Your task to perform on an android device: turn on notifications settings in the gmail app Image 0: 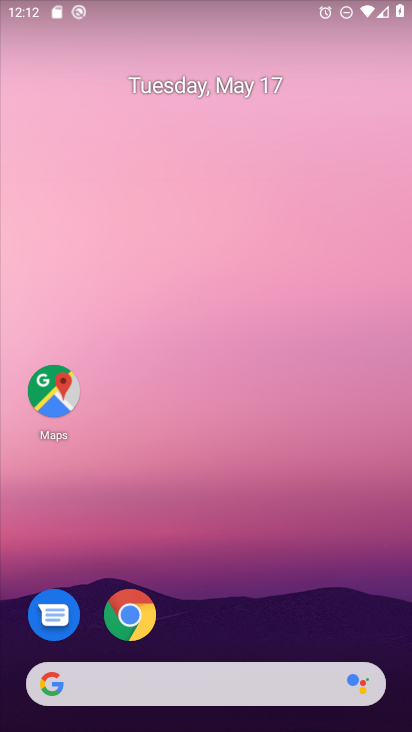
Step 0: drag from (241, 637) to (279, 332)
Your task to perform on an android device: turn on notifications settings in the gmail app Image 1: 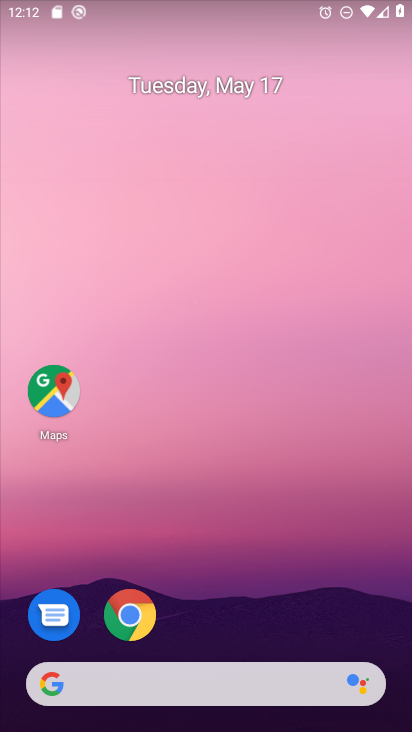
Step 1: drag from (239, 587) to (260, 377)
Your task to perform on an android device: turn on notifications settings in the gmail app Image 2: 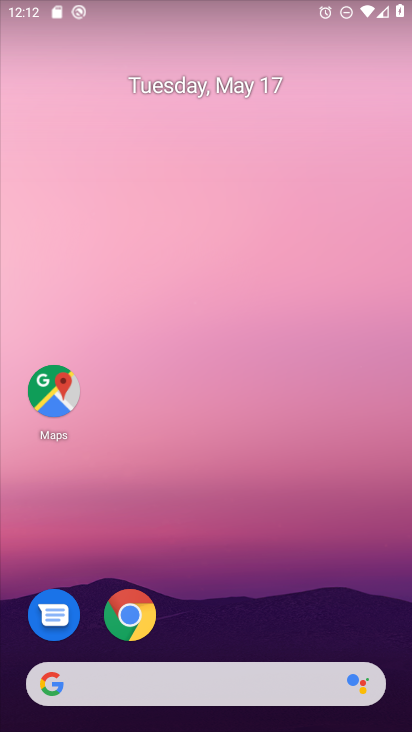
Step 2: drag from (171, 645) to (193, 320)
Your task to perform on an android device: turn on notifications settings in the gmail app Image 3: 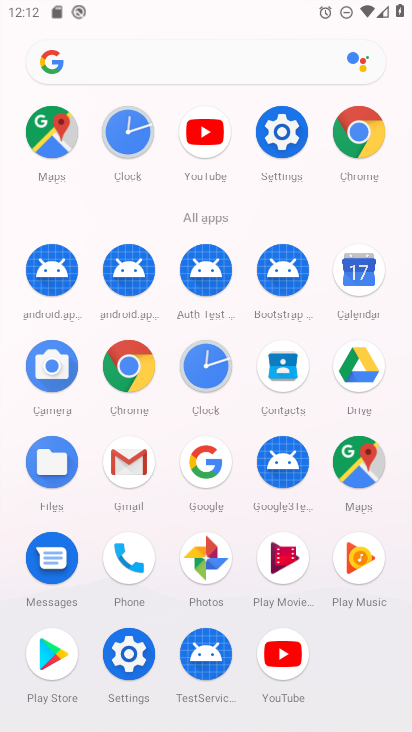
Step 3: click (120, 461)
Your task to perform on an android device: turn on notifications settings in the gmail app Image 4: 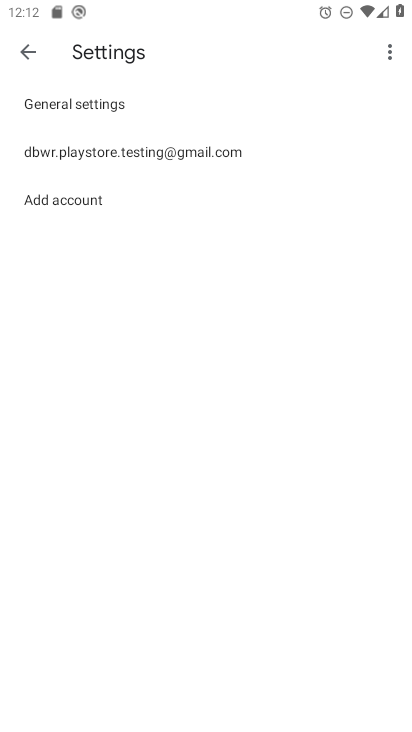
Step 4: click (68, 98)
Your task to perform on an android device: turn on notifications settings in the gmail app Image 5: 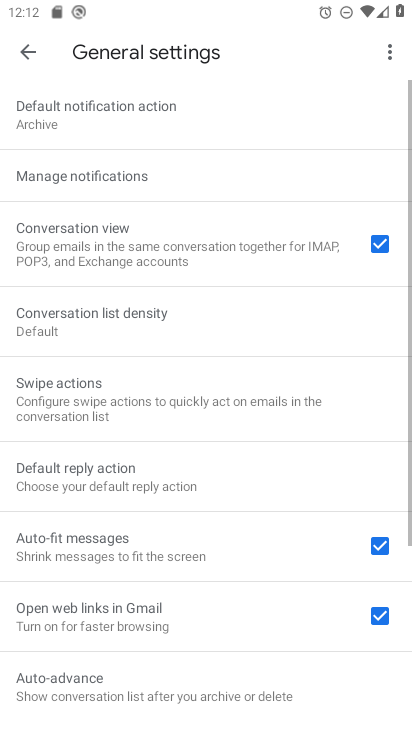
Step 5: click (98, 168)
Your task to perform on an android device: turn on notifications settings in the gmail app Image 6: 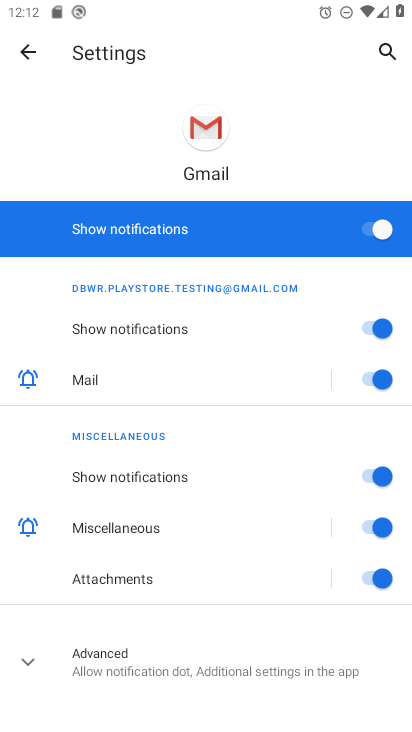
Step 6: task complete